Your task to perform on an android device: When is my next appointment? Image 0: 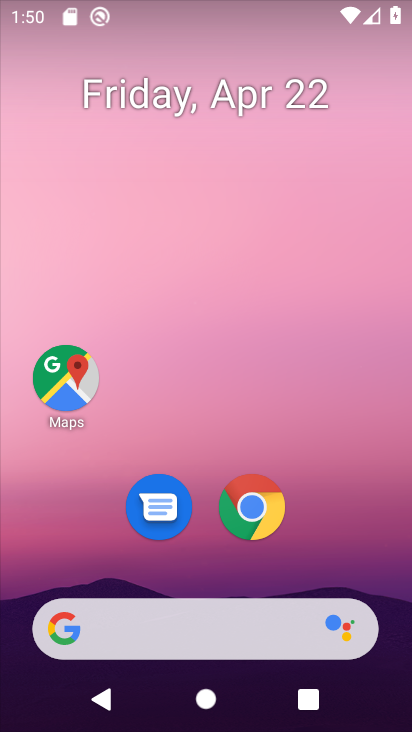
Step 0: drag from (339, 484) to (288, 46)
Your task to perform on an android device: When is my next appointment? Image 1: 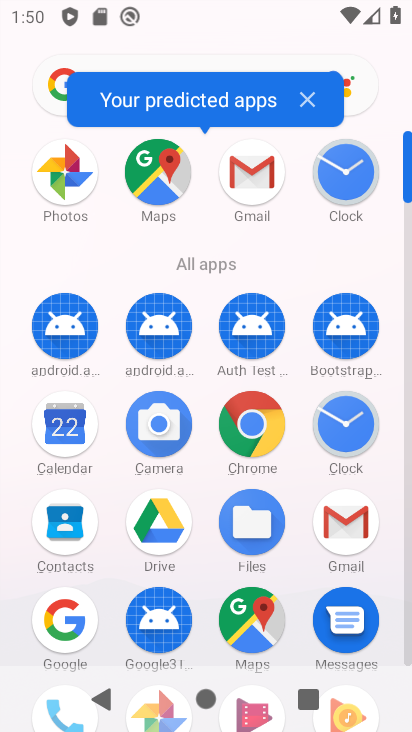
Step 1: click (72, 417)
Your task to perform on an android device: When is my next appointment? Image 2: 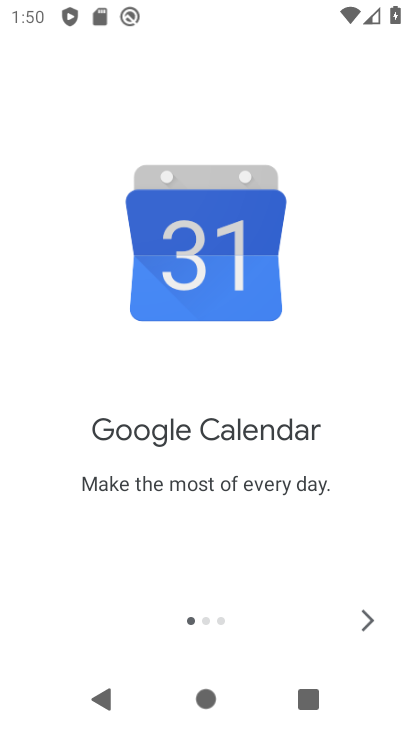
Step 2: click (359, 612)
Your task to perform on an android device: When is my next appointment? Image 3: 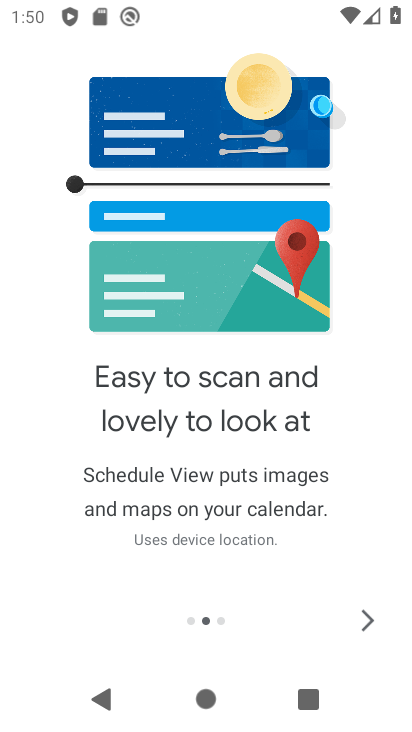
Step 3: click (359, 612)
Your task to perform on an android device: When is my next appointment? Image 4: 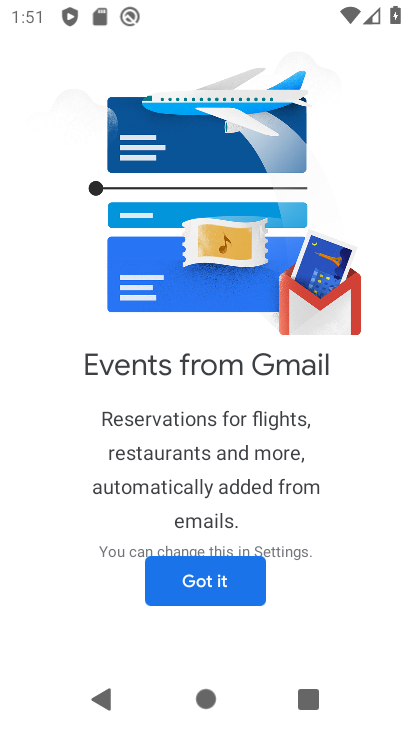
Step 4: click (198, 586)
Your task to perform on an android device: When is my next appointment? Image 5: 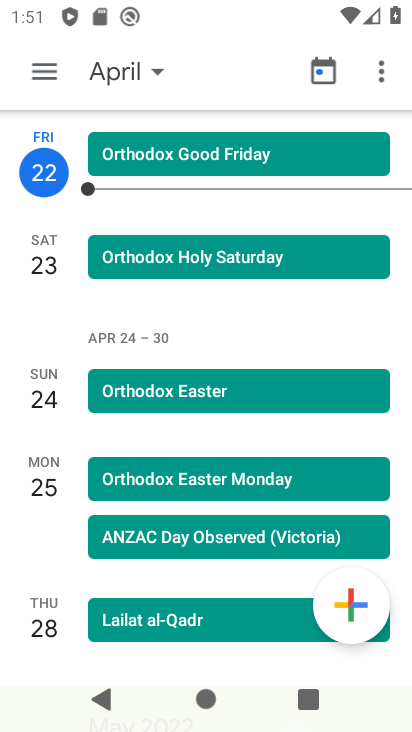
Step 5: click (122, 82)
Your task to perform on an android device: When is my next appointment? Image 6: 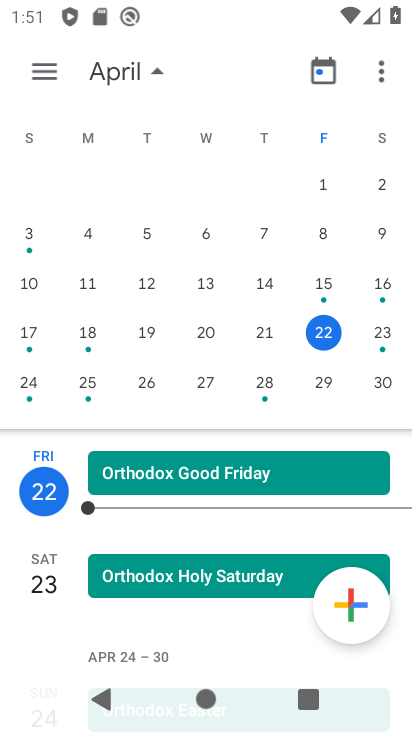
Step 6: click (313, 331)
Your task to perform on an android device: When is my next appointment? Image 7: 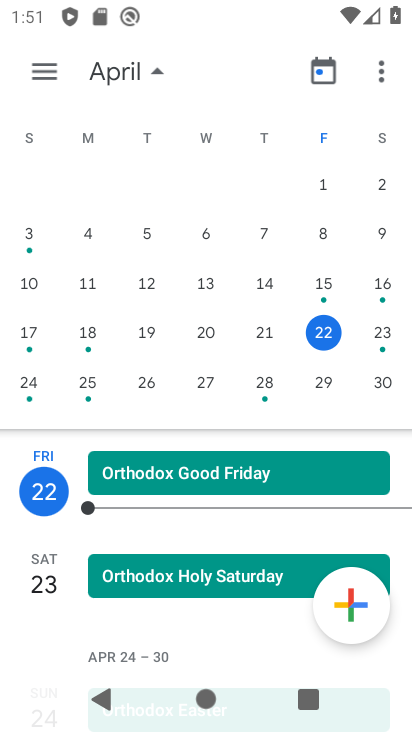
Step 7: click (43, 74)
Your task to perform on an android device: When is my next appointment? Image 8: 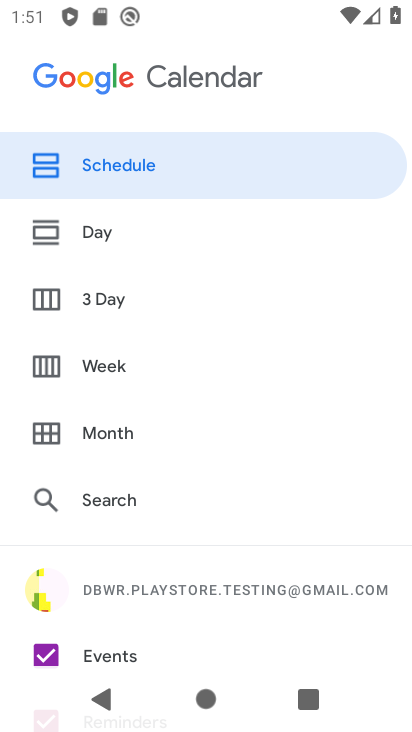
Step 8: click (119, 241)
Your task to perform on an android device: When is my next appointment? Image 9: 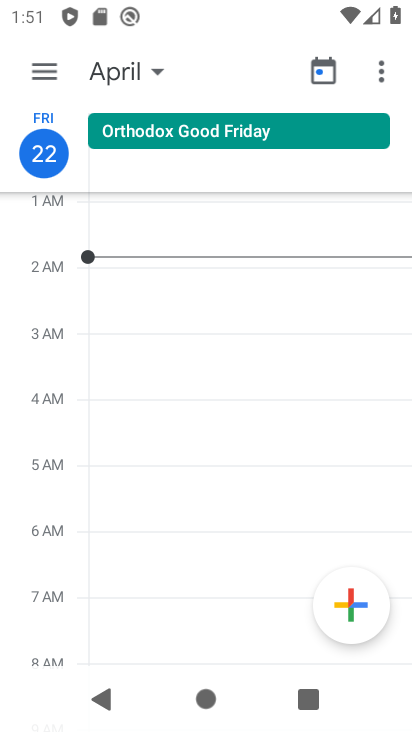
Step 9: task complete